Your task to perform on an android device: change text size in settings app Image 0: 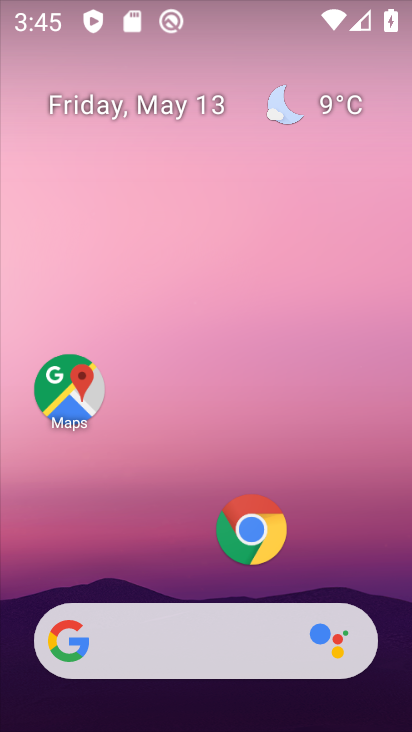
Step 0: drag from (199, 572) to (208, 47)
Your task to perform on an android device: change text size in settings app Image 1: 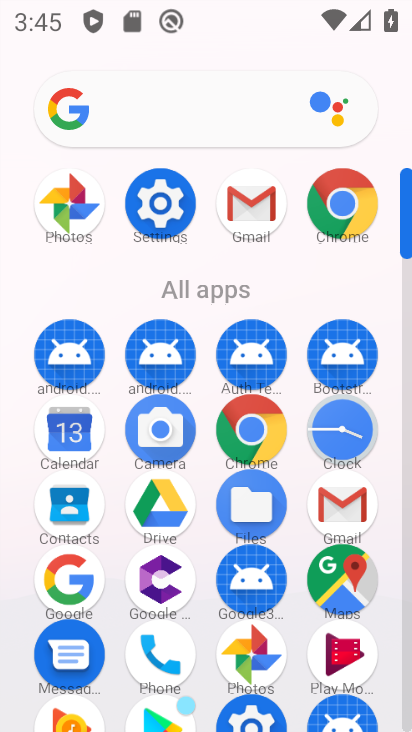
Step 1: click (160, 198)
Your task to perform on an android device: change text size in settings app Image 2: 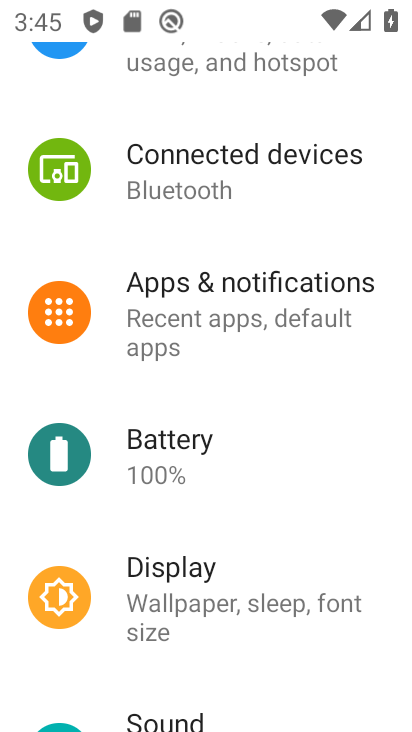
Step 2: click (169, 586)
Your task to perform on an android device: change text size in settings app Image 3: 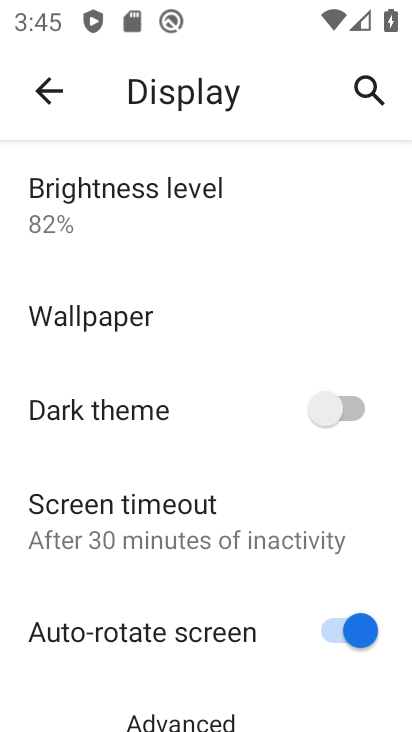
Step 3: drag from (167, 672) to (182, 200)
Your task to perform on an android device: change text size in settings app Image 4: 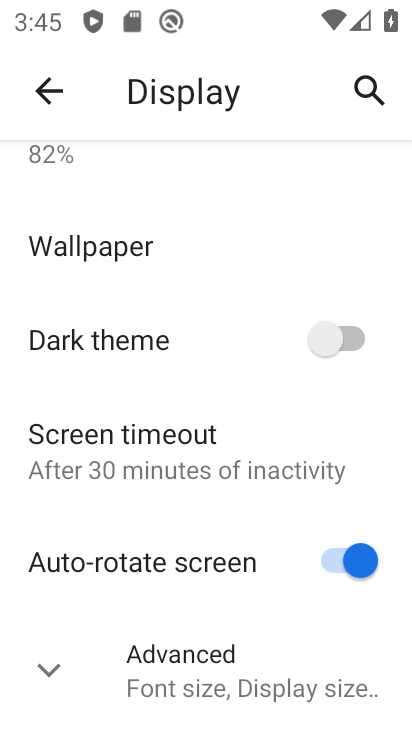
Step 4: click (58, 667)
Your task to perform on an android device: change text size in settings app Image 5: 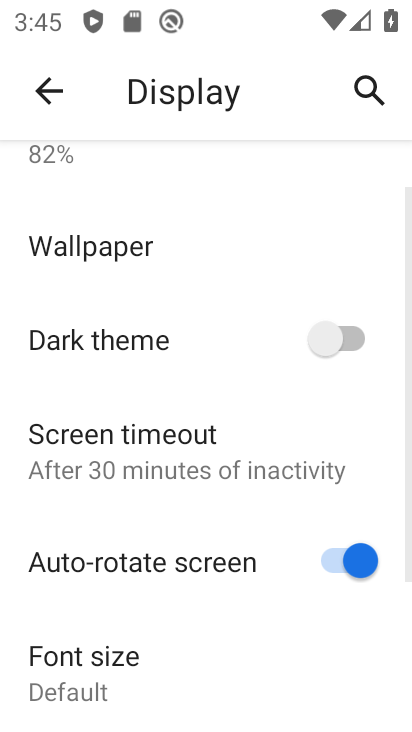
Step 5: click (131, 686)
Your task to perform on an android device: change text size in settings app Image 6: 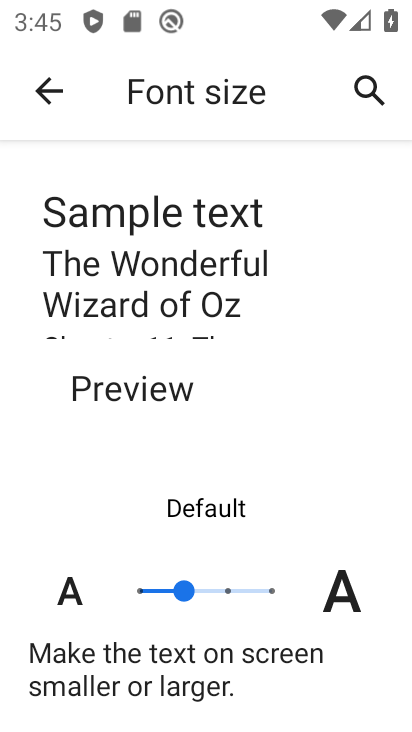
Step 6: click (135, 590)
Your task to perform on an android device: change text size in settings app Image 7: 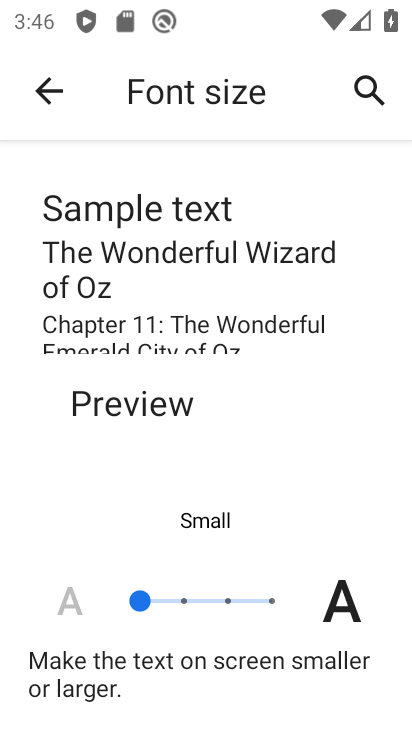
Step 7: task complete